Your task to perform on an android device: Go to sound settings Image 0: 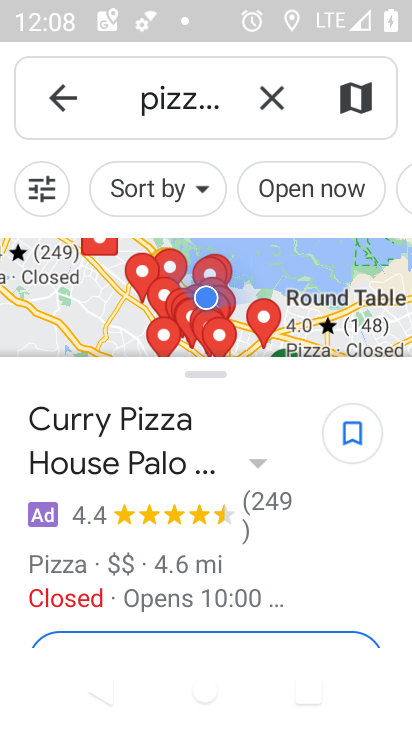
Step 0: press home button
Your task to perform on an android device: Go to sound settings Image 1: 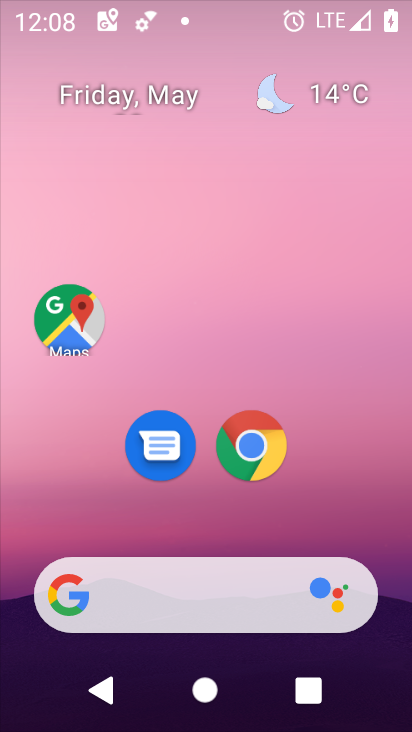
Step 1: drag from (285, 548) to (245, 195)
Your task to perform on an android device: Go to sound settings Image 2: 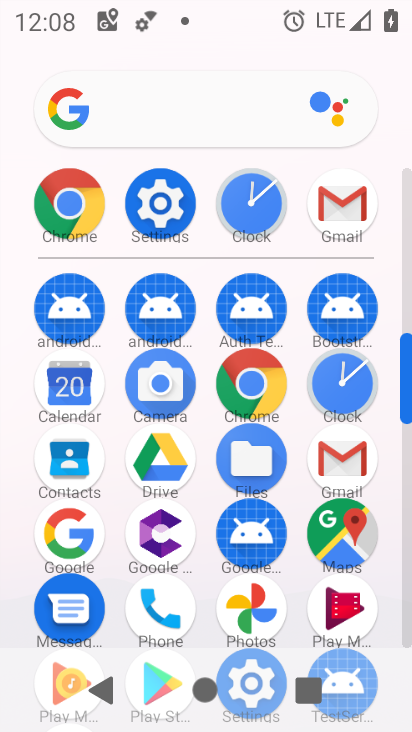
Step 2: click (186, 222)
Your task to perform on an android device: Go to sound settings Image 3: 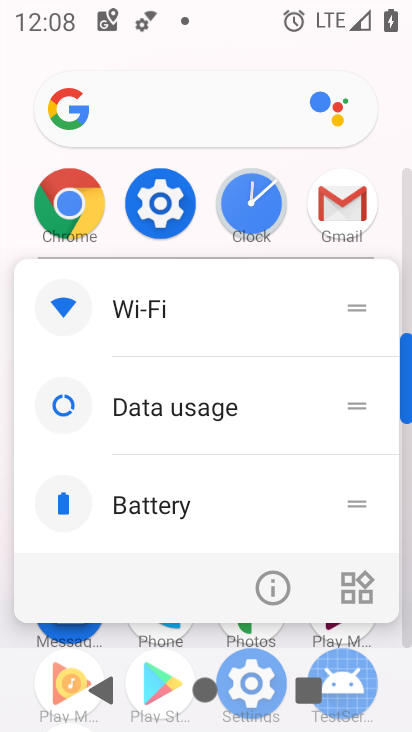
Step 3: click (179, 216)
Your task to perform on an android device: Go to sound settings Image 4: 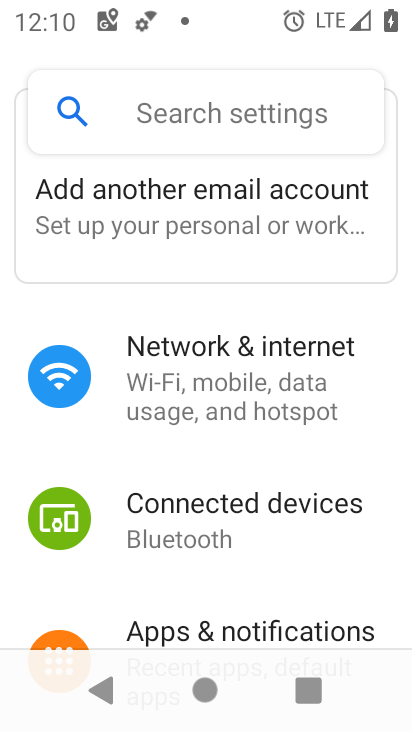
Step 4: drag from (142, 620) to (166, 325)
Your task to perform on an android device: Go to sound settings Image 5: 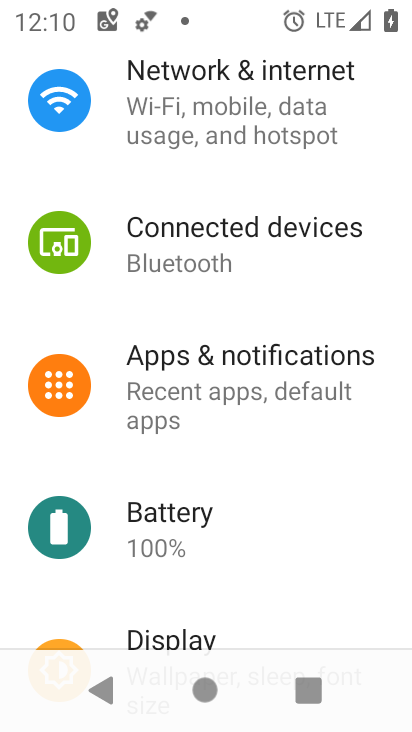
Step 5: drag from (244, 579) to (250, 641)
Your task to perform on an android device: Go to sound settings Image 6: 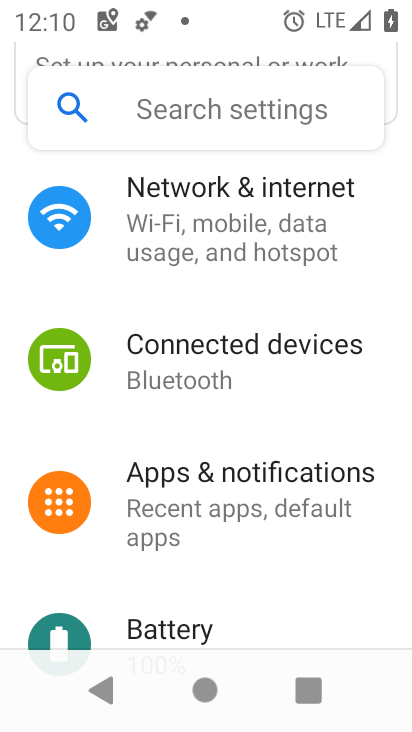
Step 6: drag from (206, 295) to (250, 623)
Your task to perform on an android device: Go to sound settings Image 7: 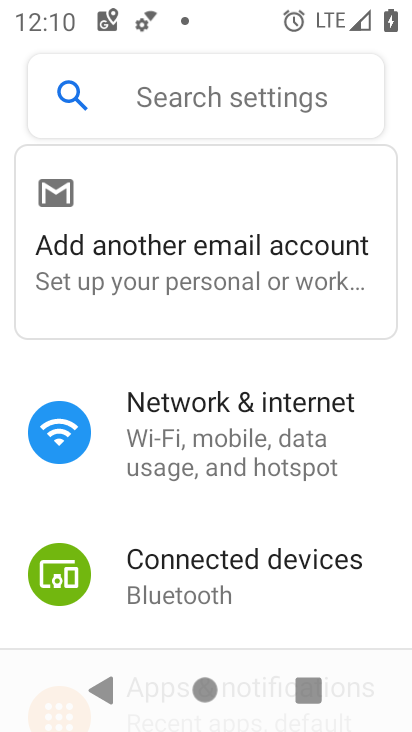
Step 7: drag from (238, 597) to (207, 291)
Your task to perform on an android device: Go to sound settings Image 8: 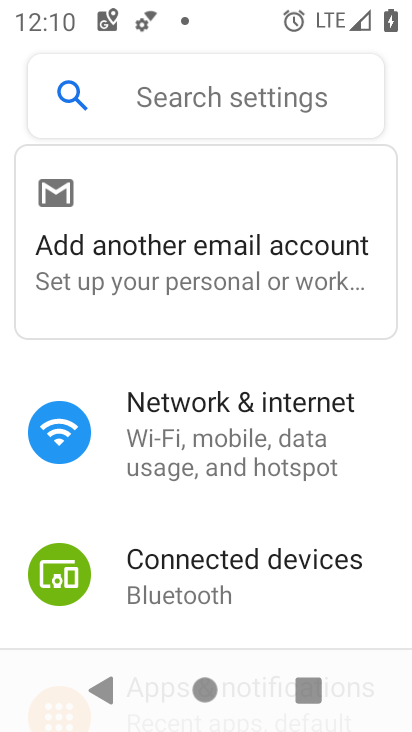
Step 8: drag from (194, 608) to (228, 255)
Your task to perform on an android device: Go to sound settings Image 9: 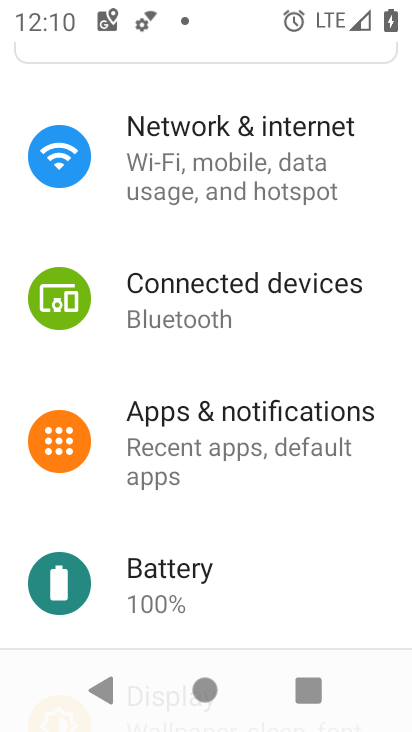
Step 9: drag from (221, 499) to (276, 217)
Your task to perform on an android device: Go to sound settings Image 10: 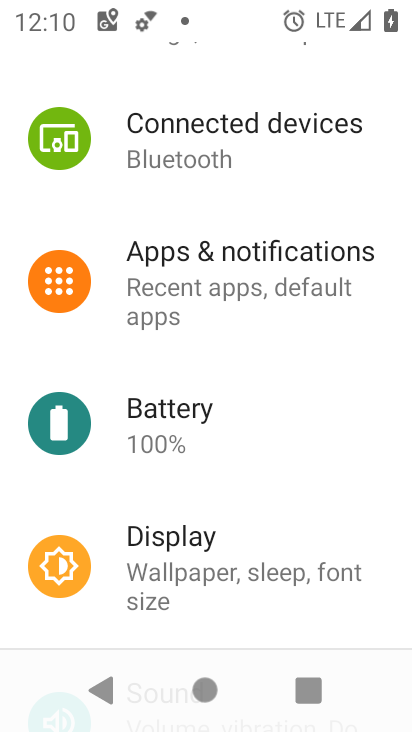
Step 10: drag from (243, 572) to (315, 258)
Your task to perform on an android device: Go to sound settings Image 11: 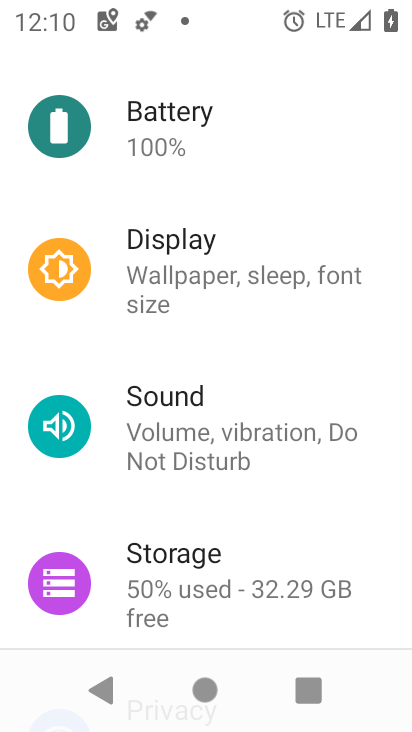
Step 11: drag from (194, 592) to (200, 491)
Your task to perform on an android device: Go to sound settings Image 12: 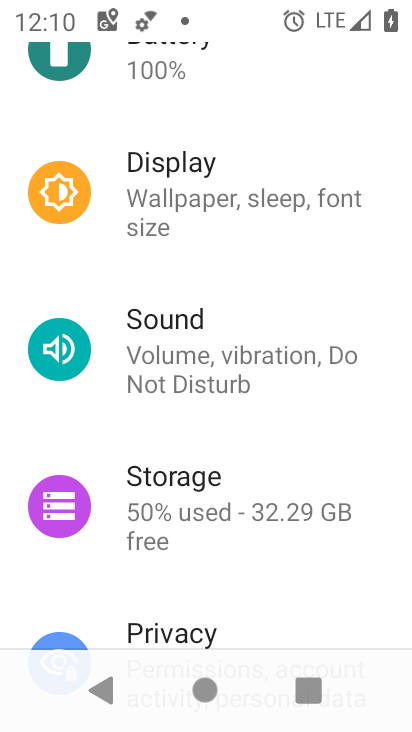
Step 12: click (230, 347)
Your task to perform on an android device: Go to sound settings Image 13: 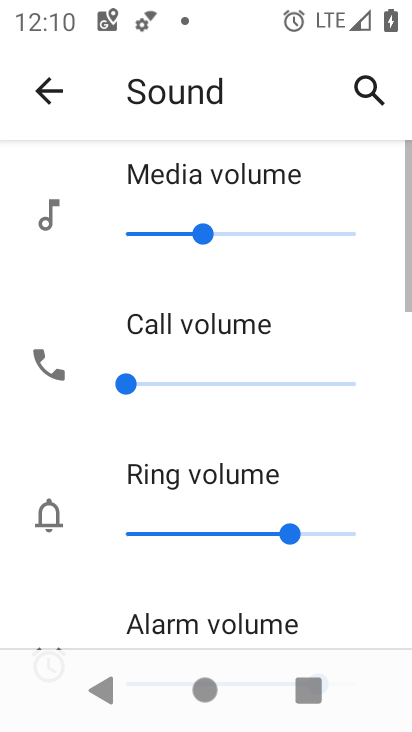
Step 13: task complete